Your task to perform on an android device: change text size in settings app Image 0: 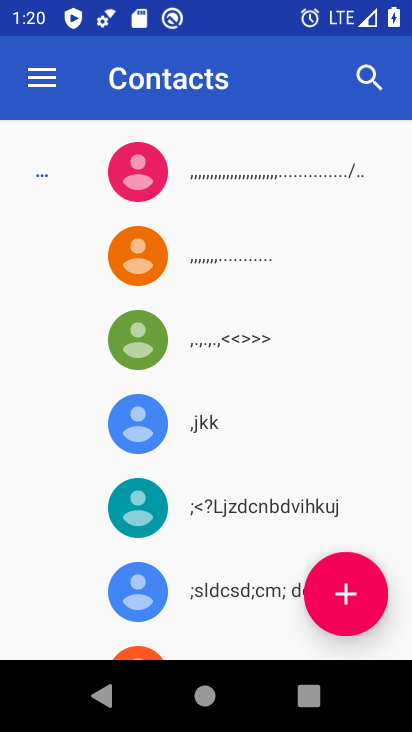
Step 0: press home button
Your task to perform on an android device: change text size in settings app Image 1: 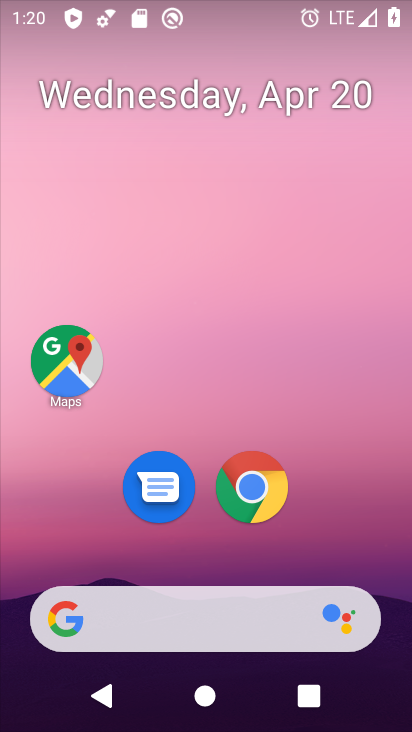
Step 1: drag from (360, 515) to (295, 57)
Your task to perform on an android device: change text size in settings app Image 2: 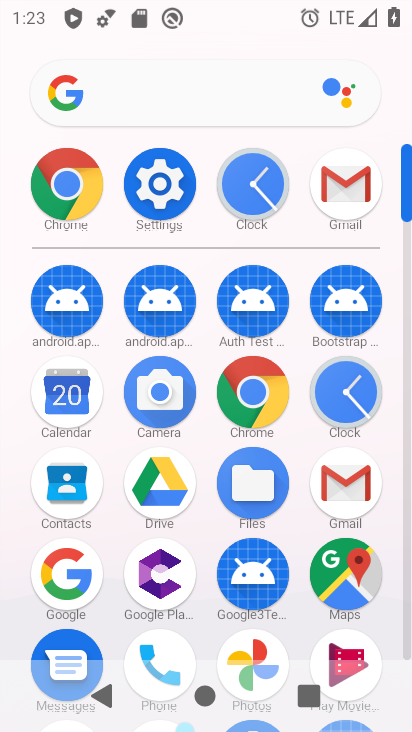
Step 2: click (152, 174)
Your task to perform on an android device: change text size in settings app Image 3: 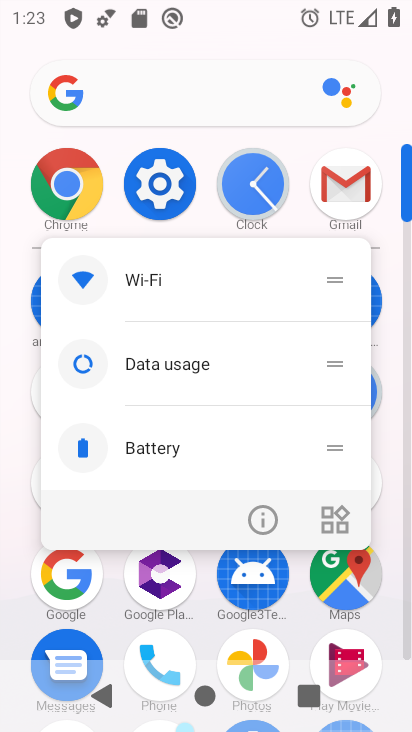
Step 3: click (153, 174)
Your task to perform on an android device: change text size in settings app Image 4: 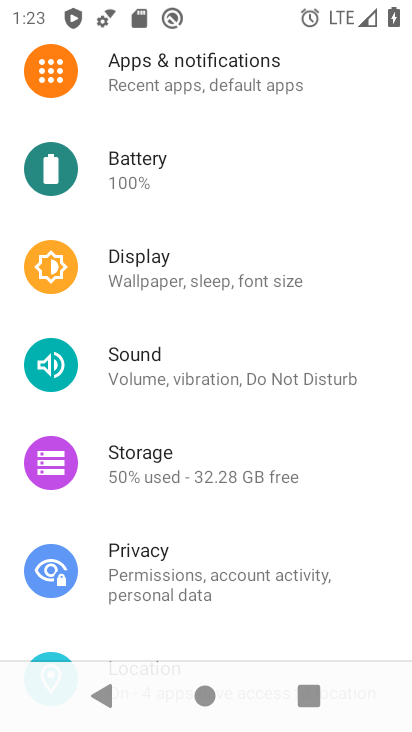
Step 4: click (205, 281)
Your task to perform on an android device: change text size in settings app Image 5: 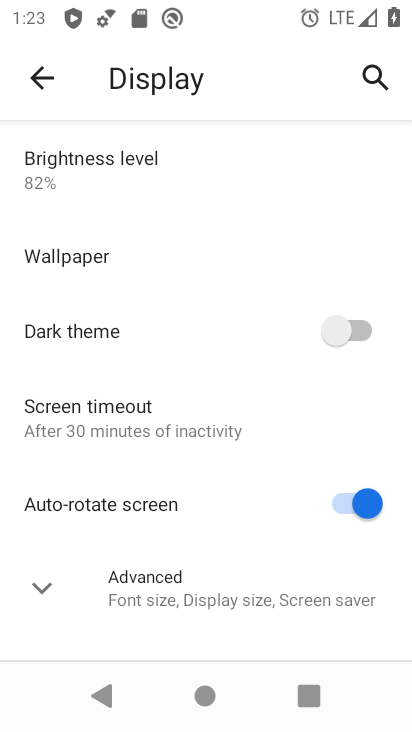
Step 5: click (114, 598)
Your task to perform on an android device: change text size in settings app Image 6: 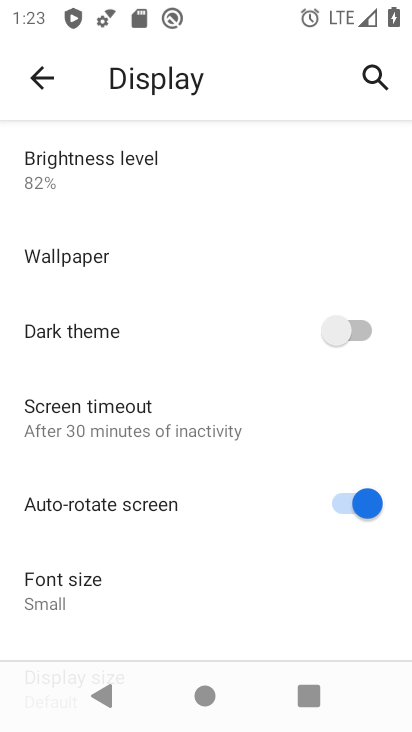
Step 6: click (113, 596)
Your task to perform on an android device: change text size in settings app Image 7: 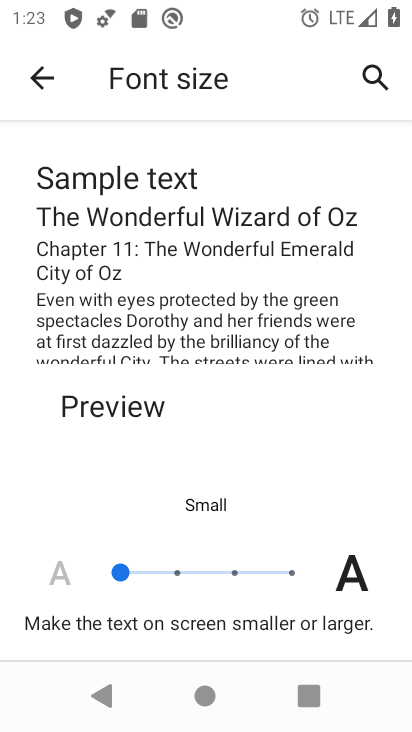
Step 7: click (176, 575)
Your task to perform on an android device: change text size in settings app Image 8: 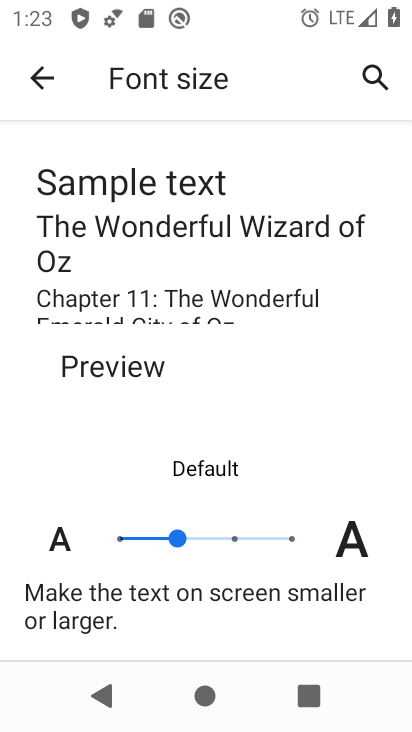
Step 8: task complete